Your task to perform on an android device: Open Youtube and go to "Your channel" Image 0: 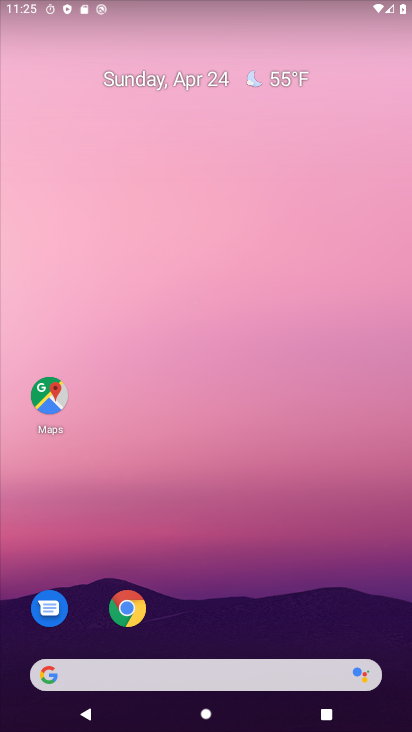
Step 0: click (258, 168)
Your task to perform on an android device: Open Youtube and go to "Your channel" Image 1: 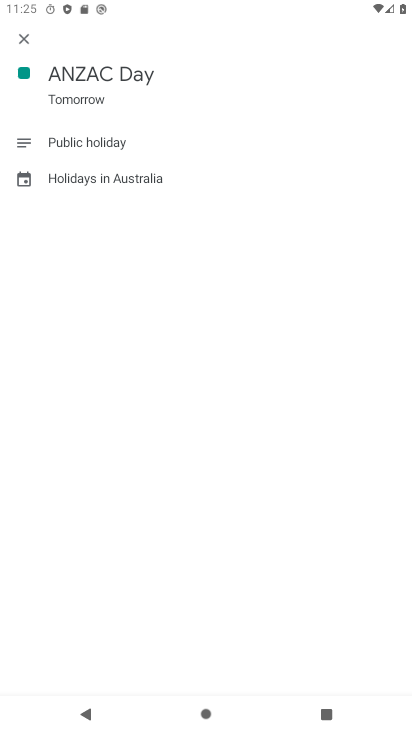
Step 1: press back button
Your task to perform on an android device: Open Youtube and go to "Your channel" Image 2: 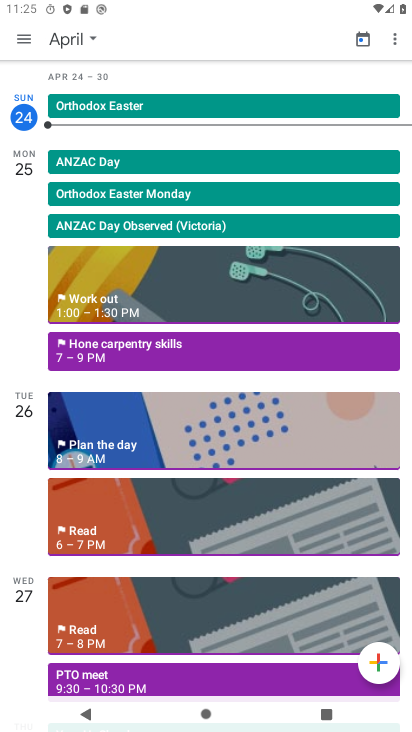
Step 2: press back button
Your task to perform on an android device: Open Youtube and go to "Your channel" Image 3: 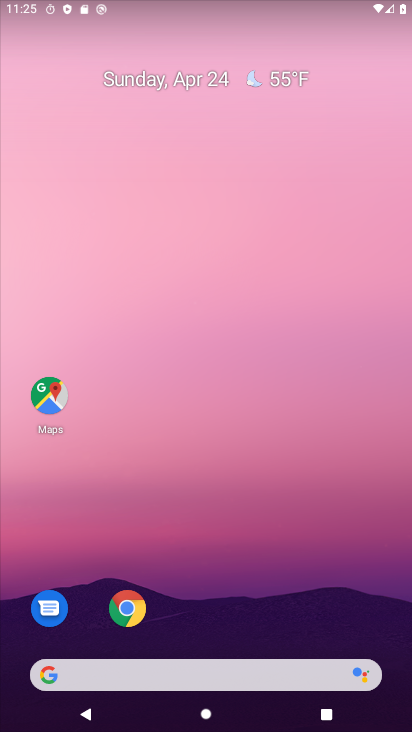
Step 3: drag from (182, 480) to (231, 33)
Your task to perform on an android device: Open Youtube and go to "Your channel" Image 4: 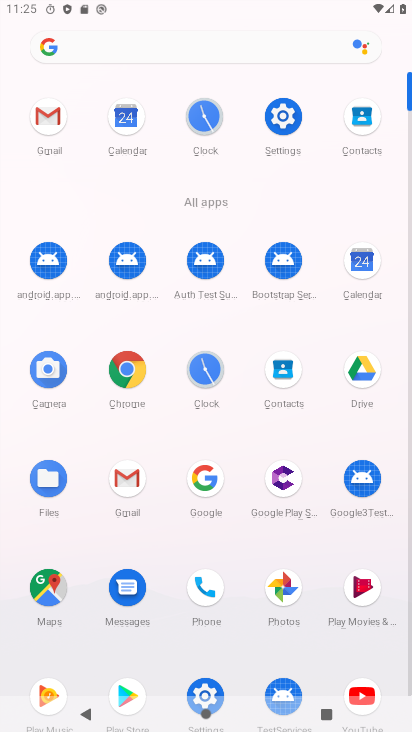
Step 4: click (358, 684)
Your task to perform on an android device: Open Youtube and go to "Your channel" Image 5: 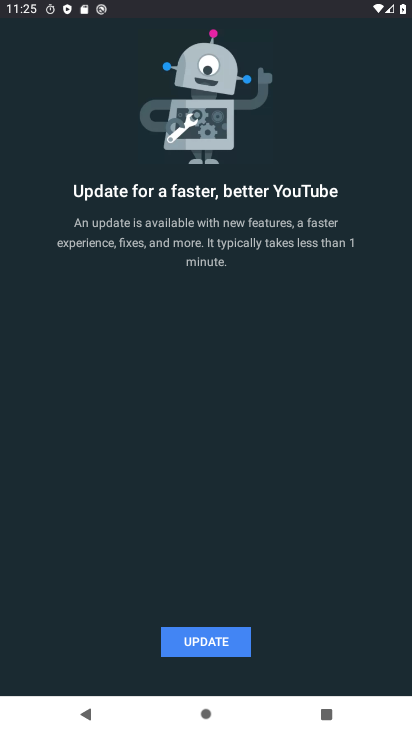
Step 5: press home button
Your task to perform on an android device: Open Youtube and go to "Your channel" Image 6: 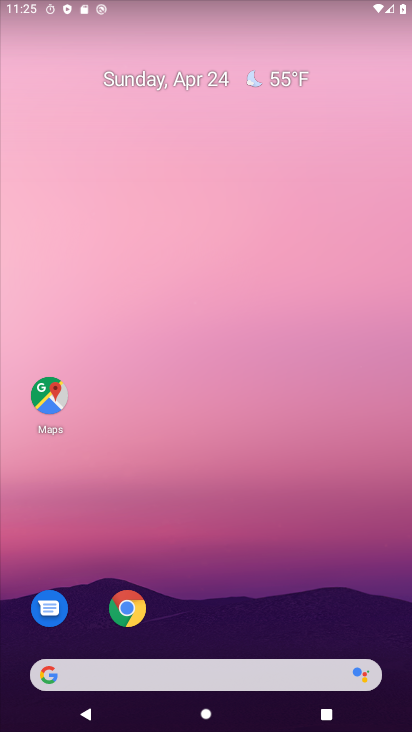
Step 6: drag from (257, 501) to (345, 36)
Your task to perform on an android device: Open Youtube and go to "Your channel" Image 7: 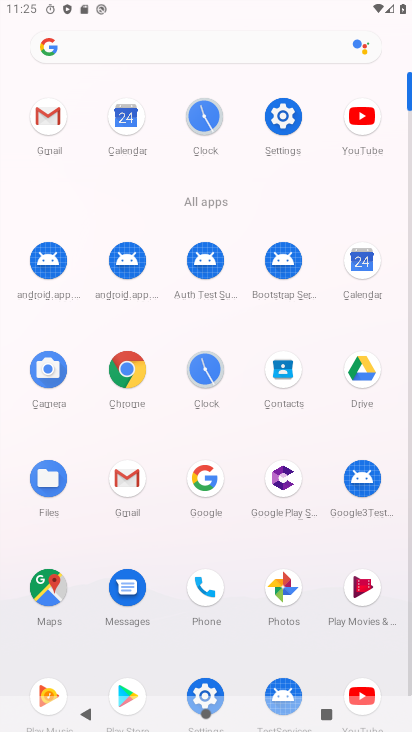
Step 7: click (358, 106)
Your task to perform on an android device: Open Youtube and go to "Your channel" Image 8: 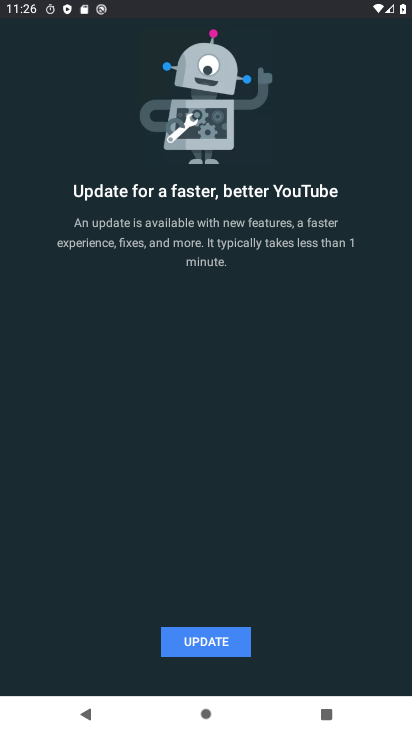
Step 8: click (202, 634)
Your task to perform on an android device: Open Youtube and go to "Your channel" Image 9: 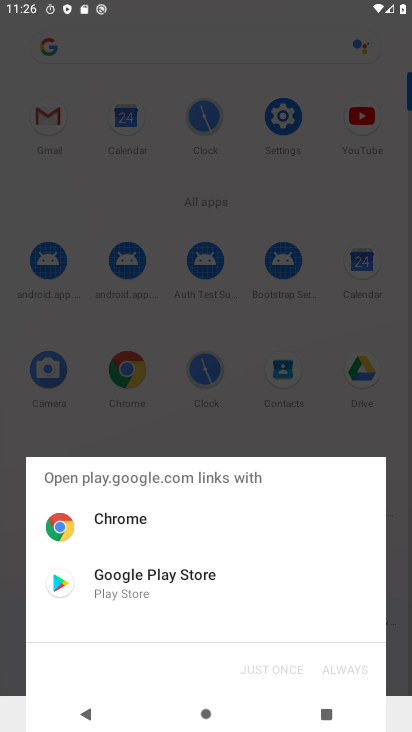
Step 9: click (118, 582)
Your task to perform on an android device: Open Youtube and go to "Your channel" Image 10: 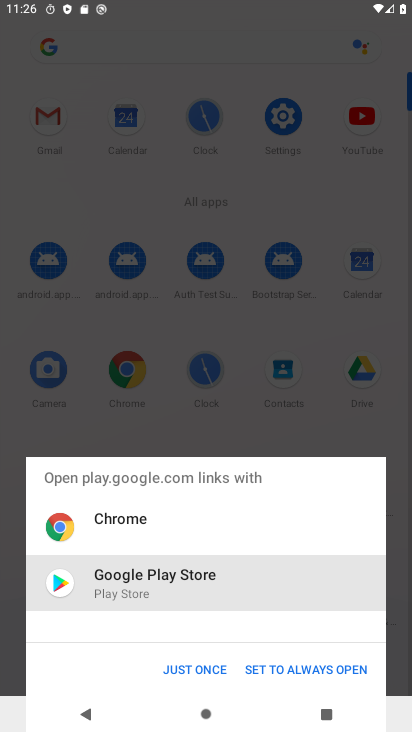
Step 10: click (187, 660)
Your task to perform on an android device: Open Youtube and go to "Your channel" Image 11: 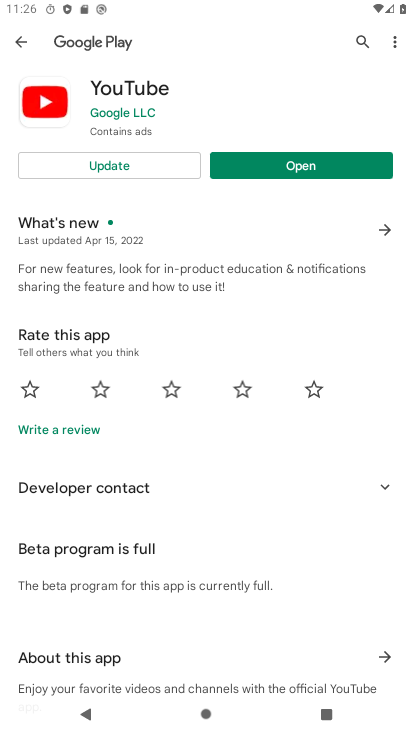
Step 11: click (107, 164)
Your task to perform on an android device: Open Youtube and go to "Your channel" Image 12: 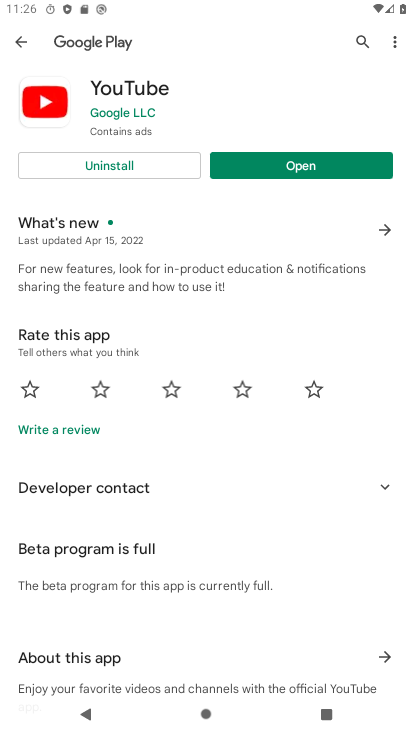
Step 12: click (281, 166)
Your task to perform on an android device: Open Youtube and go to "Your channel" Image 13: 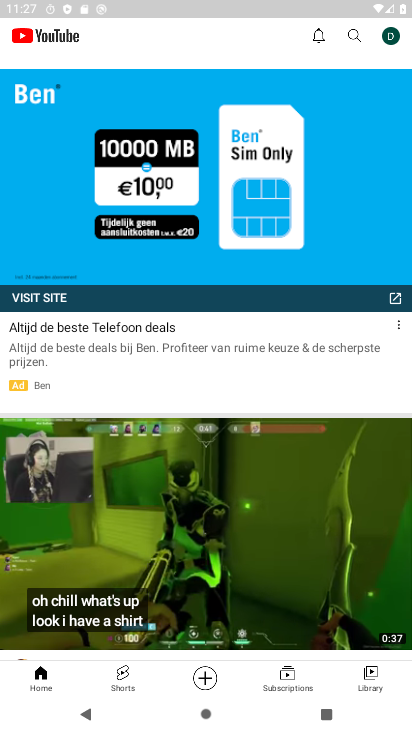
Step 13: click (391, 33)
Your task to perform on an android device: Open Youtube and go to "Your channel" Image 14: 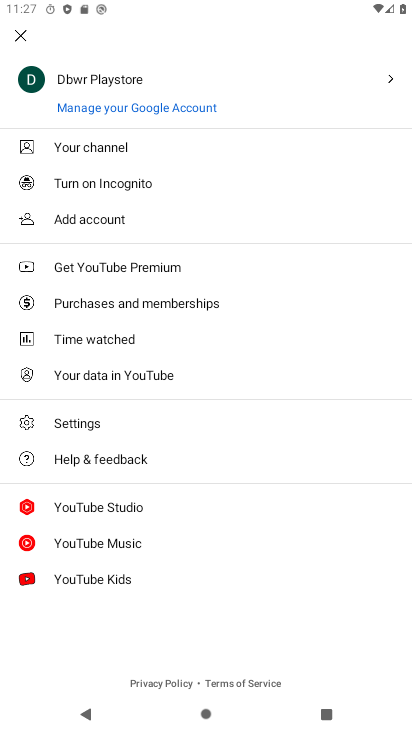
Step 14: click (71, 150)
Your task to perform on an android device: Open Youtube and go to "Your channel" Image 15: 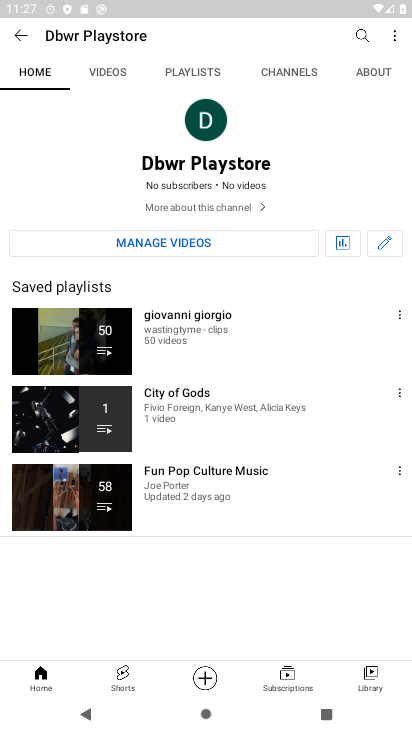
Step 15: task complete